Your task to perform on an android device: remove spam from my inbox in the gmail app Image 0: 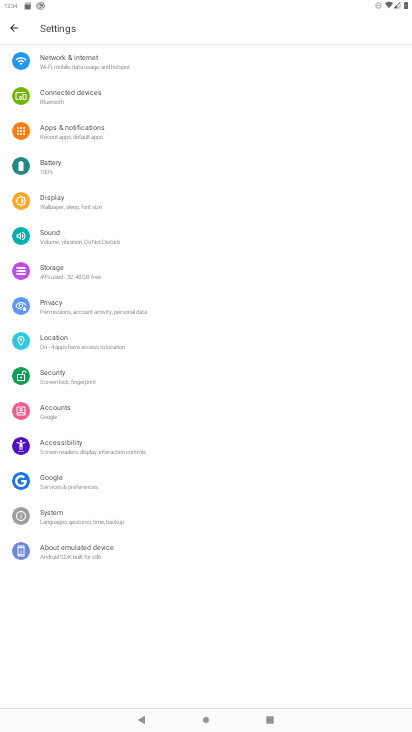
Step 0: press home button
Your task to perform on an android device: remove spam from my inbox in the gmail app Image 1: 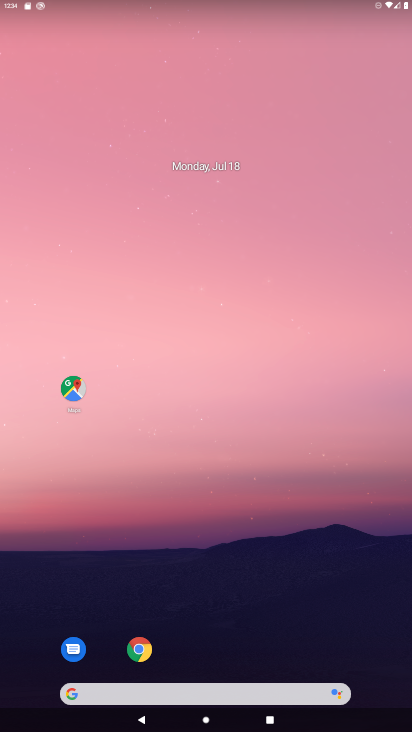
Step 1: drag from (185, 627) to (265, 90)
Your task to perform on an android device: remove spam from my inbox in the gmail app Image 2: 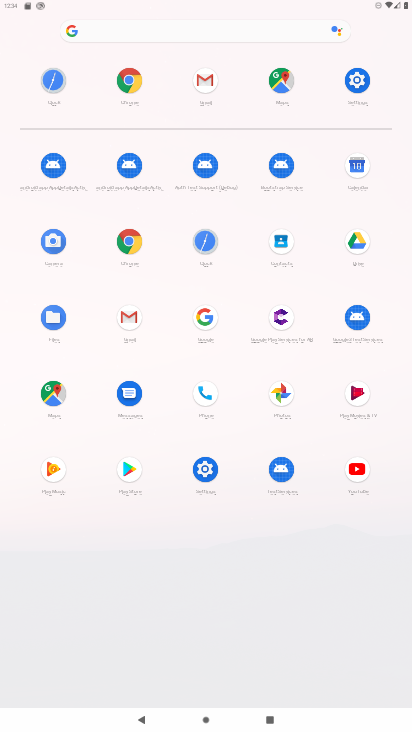
Step 2: click (195, 84)
Your task to perform on an android device: remove spam from my inbox in the gmail app Image 3: 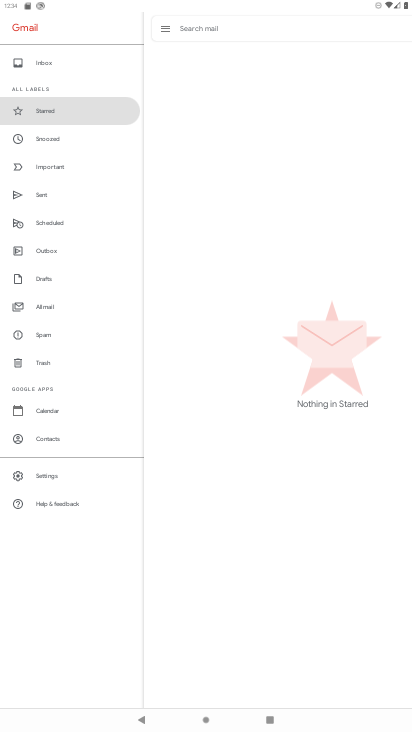
Step 3: click (59, 344)
Your task to perform on an android device: remove spam from my inbox in the gmail app Image 4: 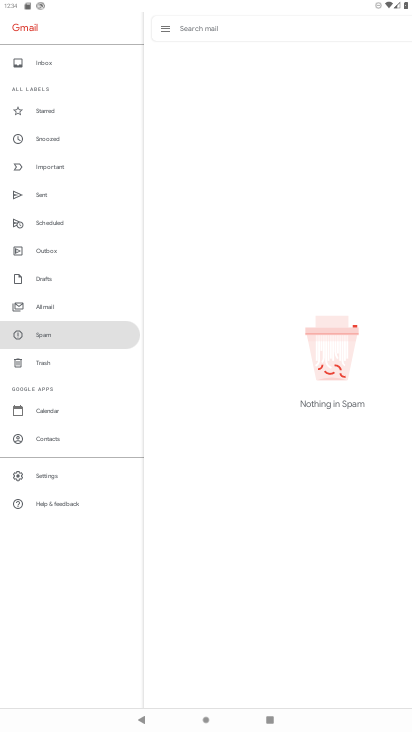
Step 4: task complete